Your task to perform on an android device: Search for vegetarian restaurants on Maps Image 0: 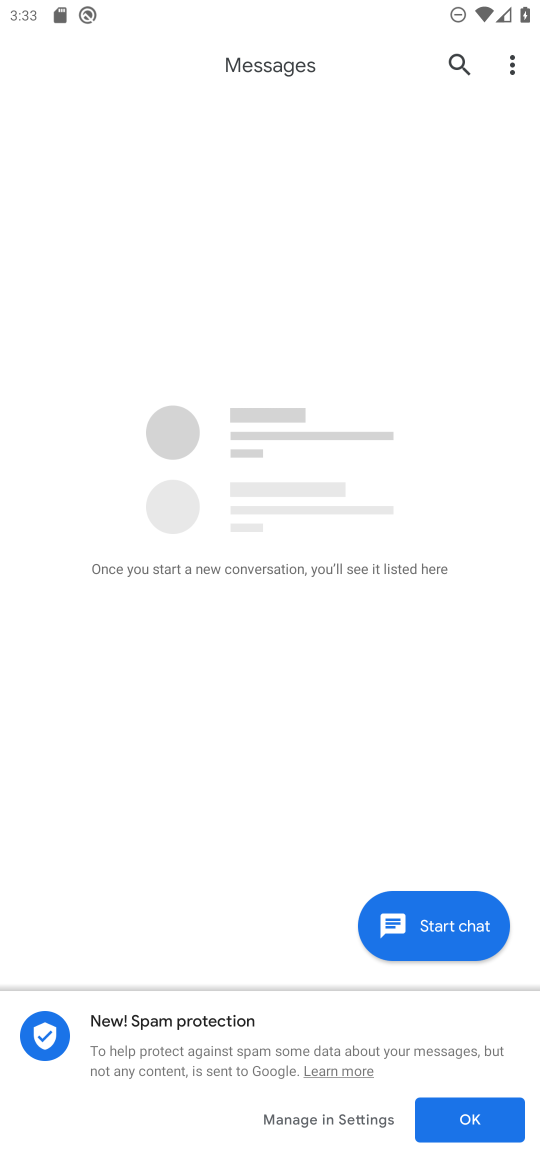
Step 0: press home button
Your task to perform on an android device: Search for vegetarian restaurants on Maps Image 1: 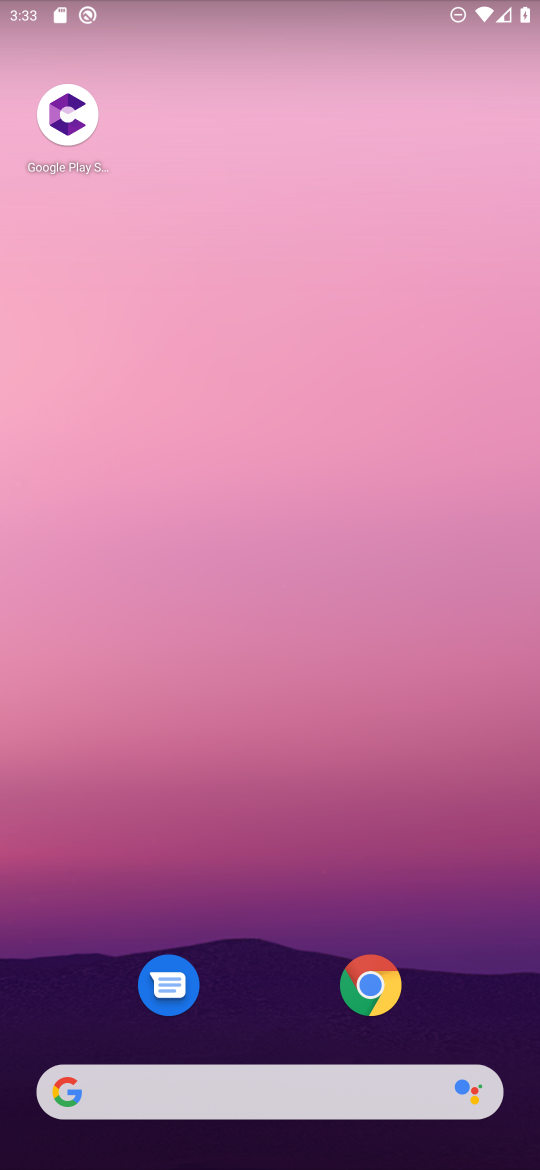
Step 1: drag from (264, 956) to (238, 404)
Your task to perform on an android device: Search for vegetarian restaurants on Maps Image 2: 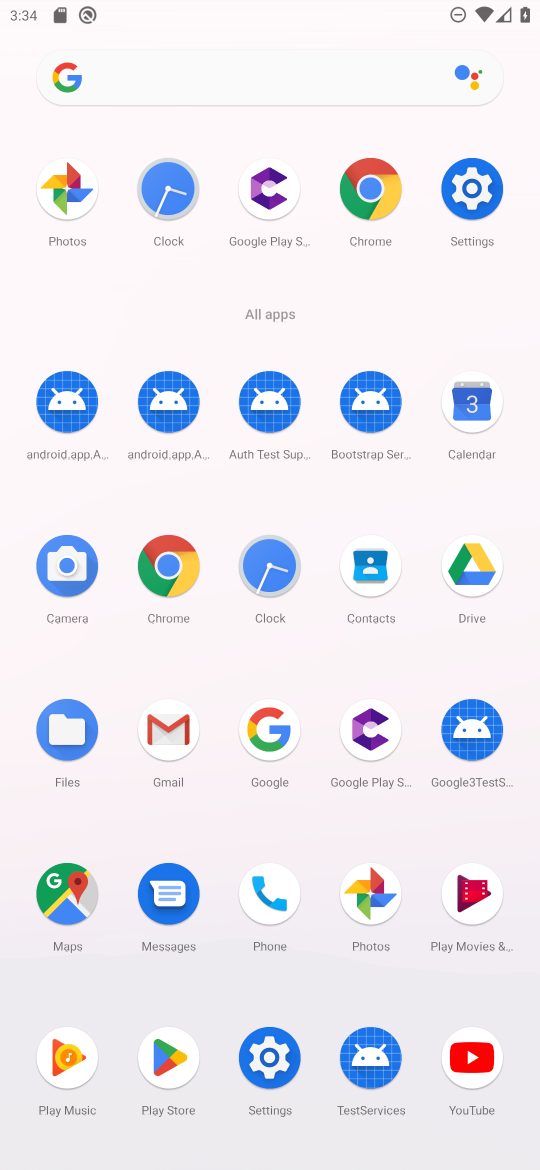
Step 2: click (72, 882)
Your task to perform on an android device: Search for vegetarian restaurants on Maps Image 3: 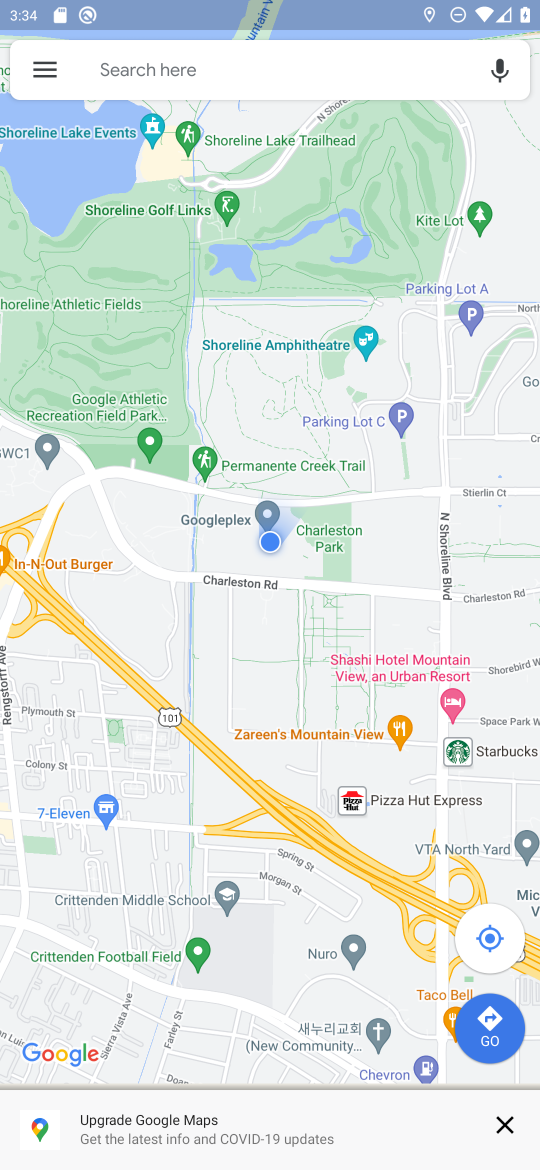
Step 3: click (240, 69)
Your task to perform on an android device: Search for vegetarian restaurants on Maps Image 4: 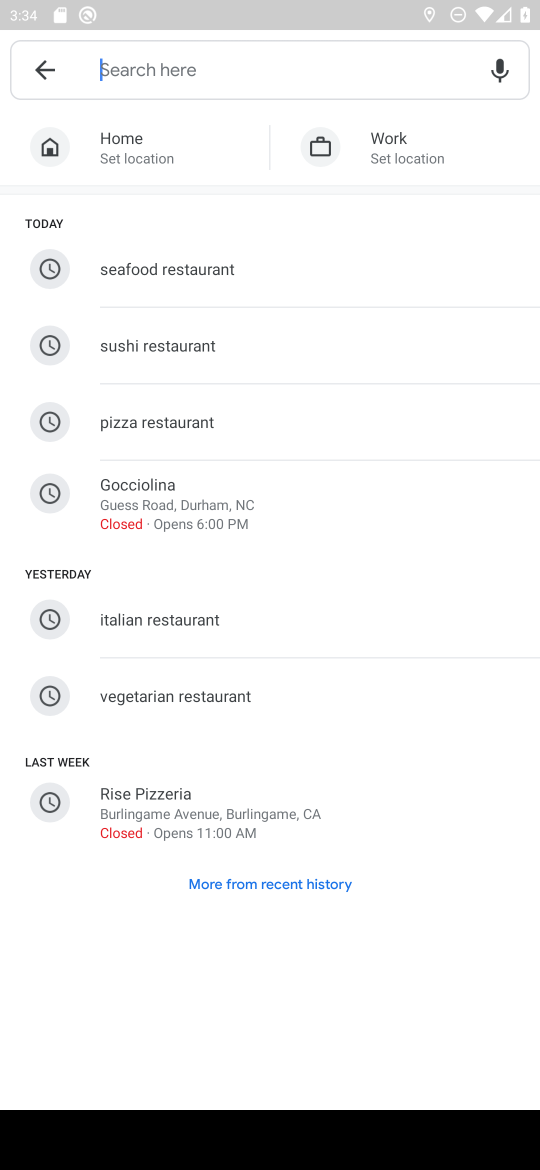
Step 4: type "vegitarian restaurants"
Your task to perform on an android device: Search for vegetarian restaurants on Maps Image 5: 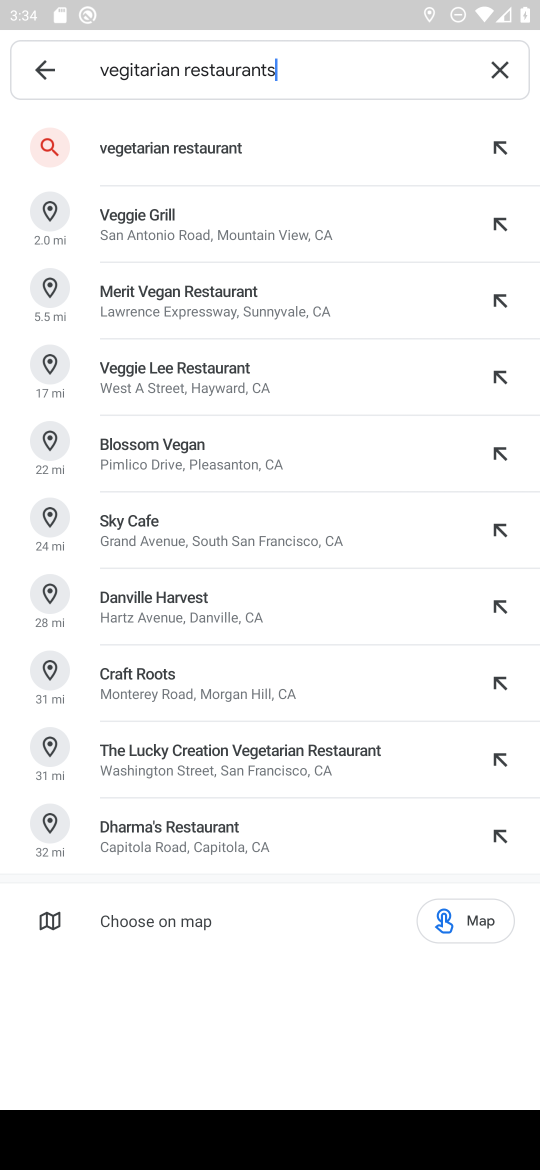
Step 5: click (279, 138)
Your task to perform on an android device: Search for vegetarian restaurants on Maps Image 6: 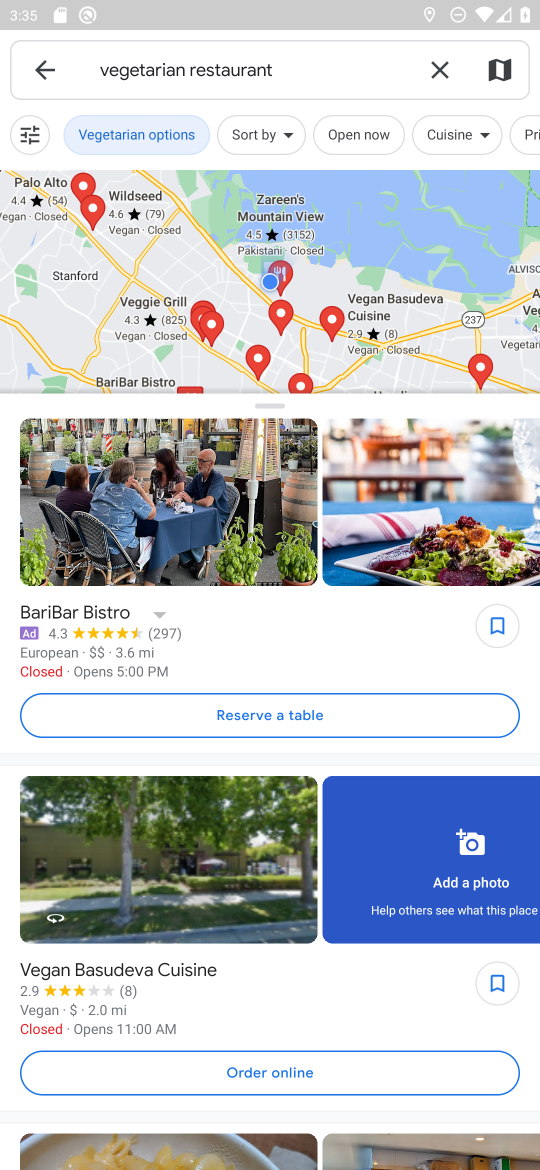
Step 6: task complete